Your task to perform on an android device: make emails show in primary in the gmail app Image 0: 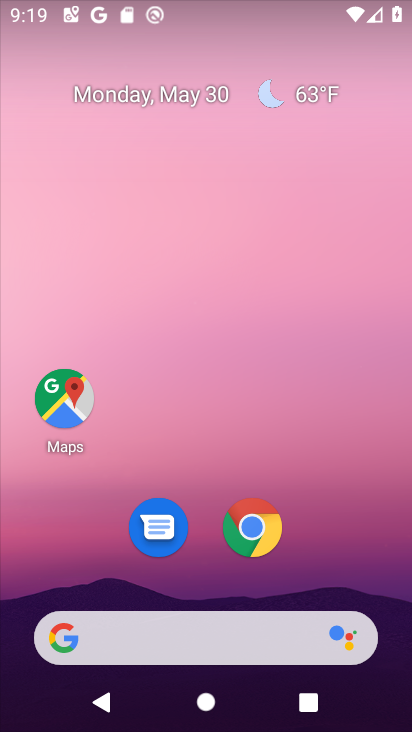
Step 0: drag from (340, 531) to (353, 279)
Your task to perform on an android device: make emails show in primary in the gmail app Image 1: 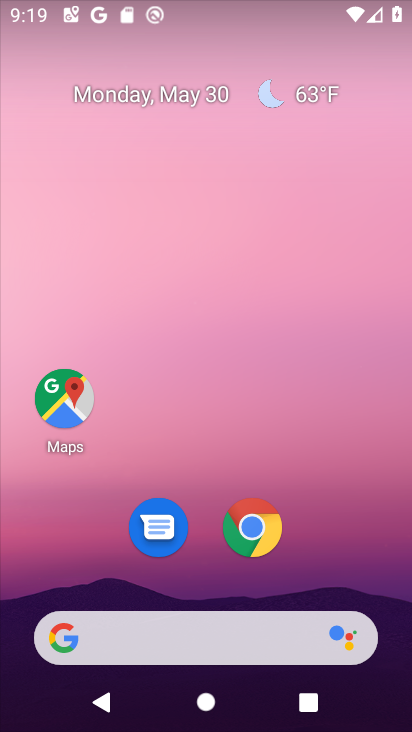
Step 1: drag from (249, 567) to (282, 250)
Your task to perform on an android device: make emails show in primary in the gmail app Image 2: 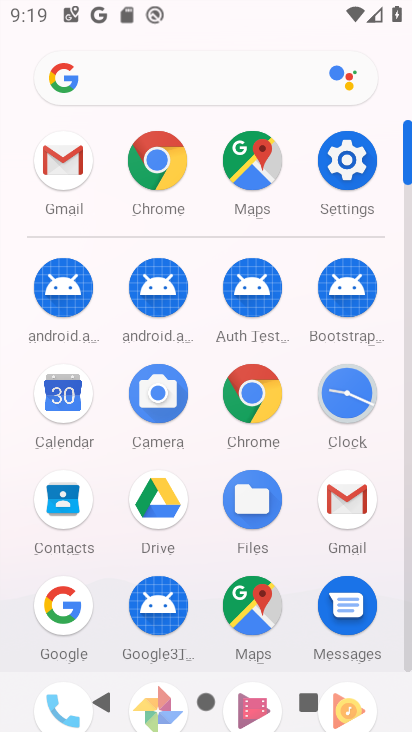
Step 2: click (355, 487)
Your task to perform on an android device: make emails show in primary in the gmail app Image 3: 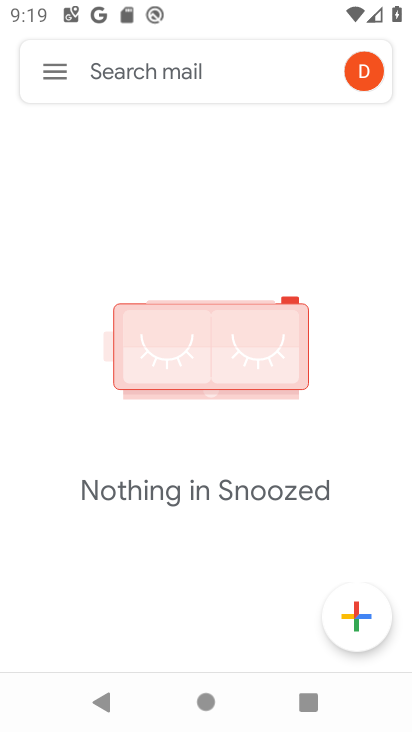
Step 3: click (63, 69)
Your task to perform on an android device: make emails show in primary in the gmail app Image 4: 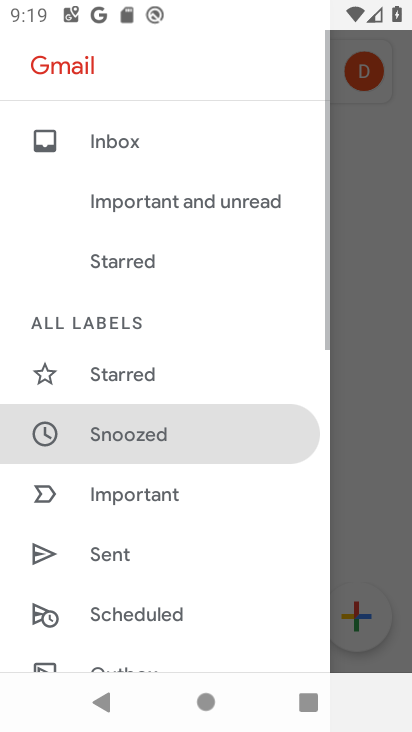
Step 4: drag from (132, 516) to (189, 119)
Your task to perform on an android device: make emails show in primary in the gmail app Image 5: 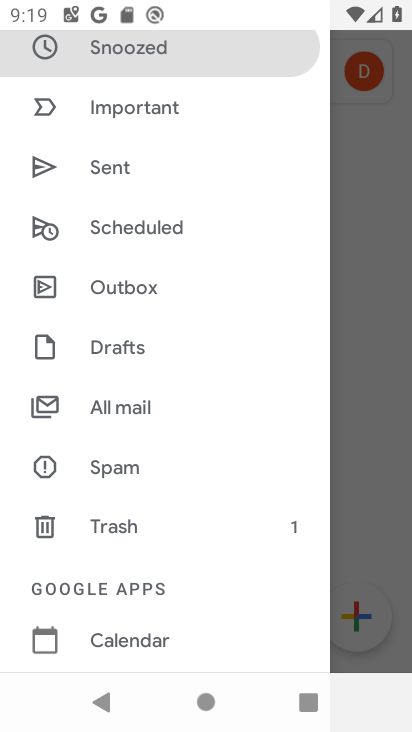
Step 5: drag from (145, 585) to (219, 184)
Your task to perform on an android device: make emails show in primary in the gmail app Image 6: 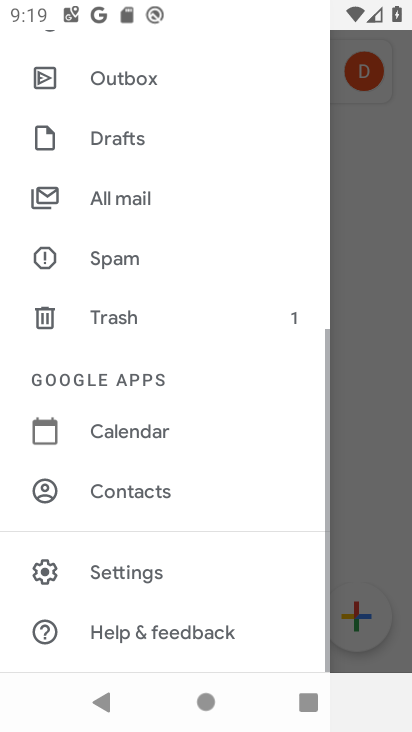
Step 6: click (162, 574)
Your task to perform on an android device: make emails show in primary in the gmail app Image 7: 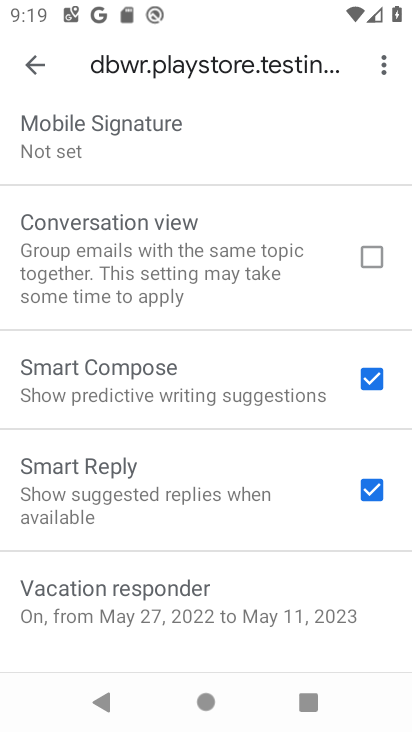
Step 7: task complete